Your task to perform on an android device: Open ESPN.com Image 0: 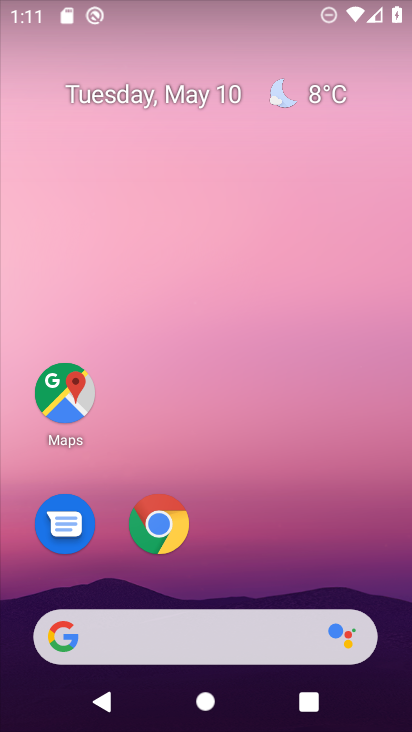
Step 0: click (243, 622)
Your task to perform on an android device: Open ESPN.com Image 1: 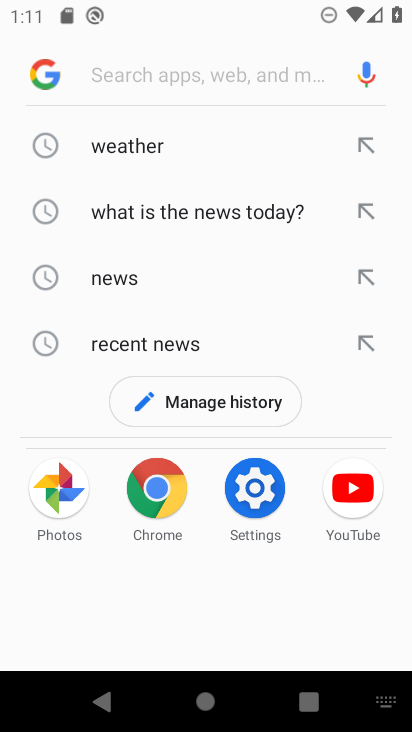
Step 1: type "espn.com"
Your task to perform on an android device: Open ESPN.com Image 2: 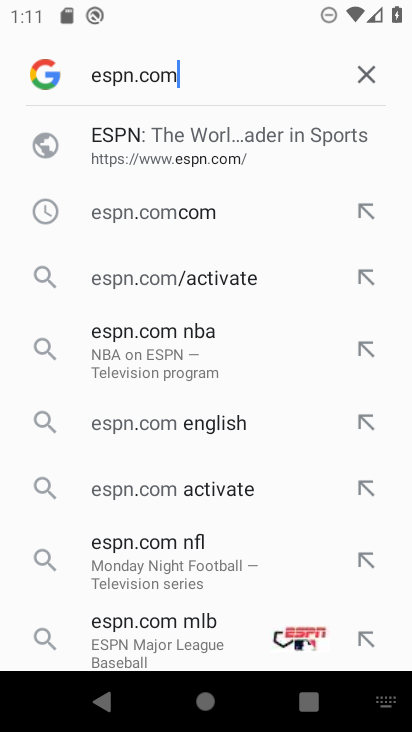
Step 2: click (56, 146)
Your task to perform on an android device: Open ESPN.com Image 3: 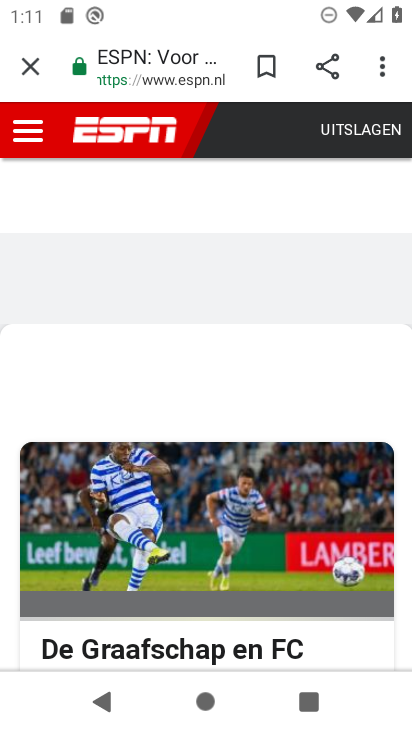
Step 3: task complete